Your task to perform on an android device: manage bookmarks in the chrome app Image 0: 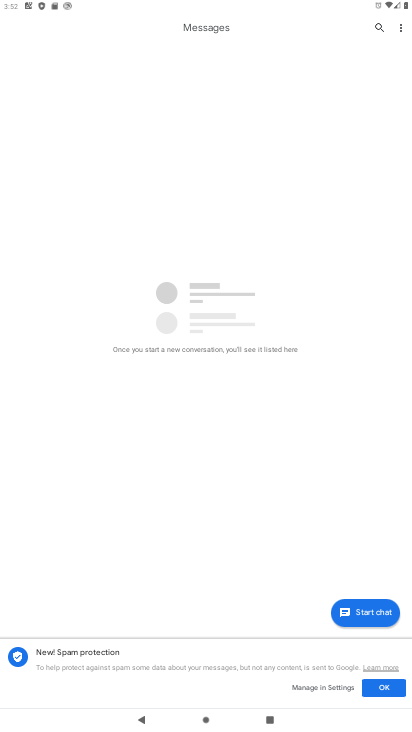
Step 0: press home button
Your task to perform on an android device: manage bookmarks in the chrome app Image 1: 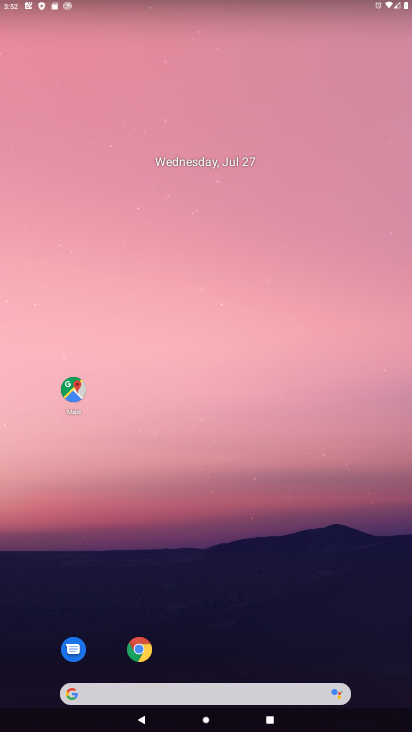
Step 1: click (139, 653)
Your task to perform on an android device: manage bookmarks in the chrome app Image 2: 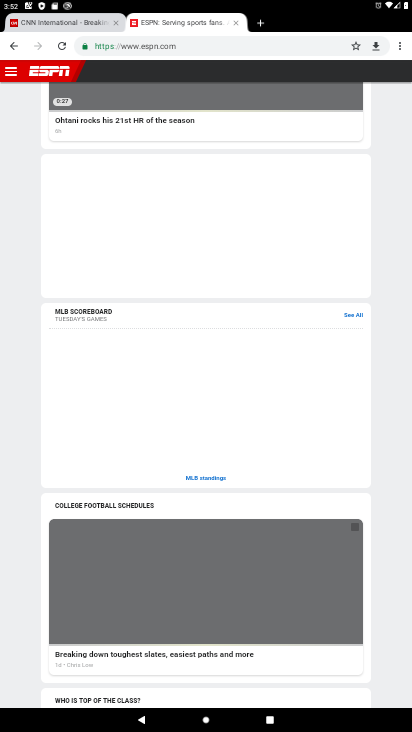
Step 2: click (398, 50)
Your task to perform on an android device: manage bookmarks in the chrome app Image 3: 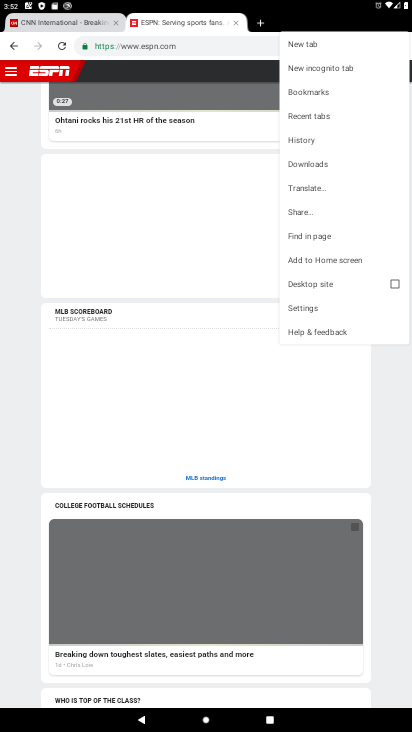
Step 3: click (298, 87)
Your task to perform on an android device: manage bookmarks in the chrome app Image 4: 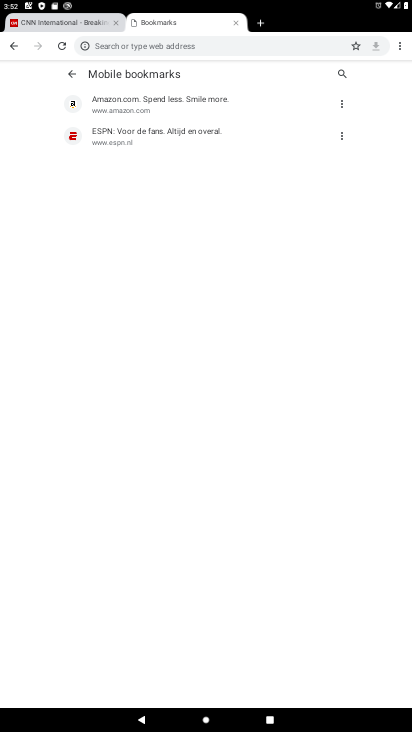
Step 4: click (110, 129)
Your task to perform on an android device: manage bookmarks in the chrome app Image 5: 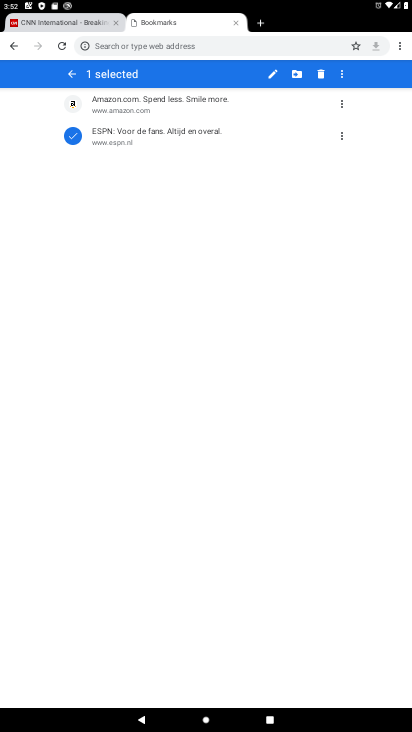
Step 5: click (293, 75)
Your task to perform on an android device: manage bookmarks in the chrome app Image 6: 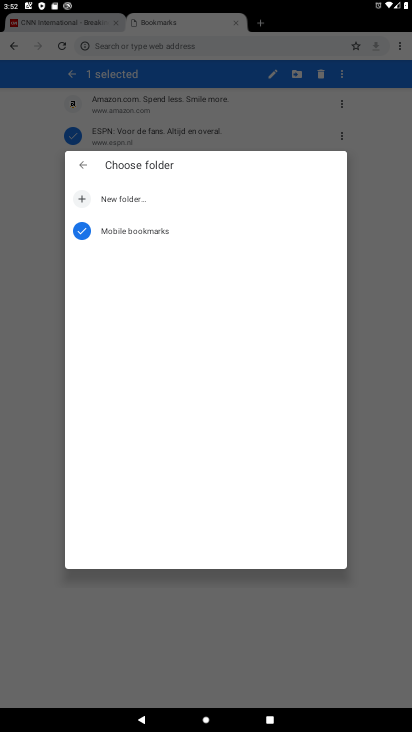
Step 6: click (81, 197)
Your task to perform on an android device: manage bookmarks in the chrome app Image 7: 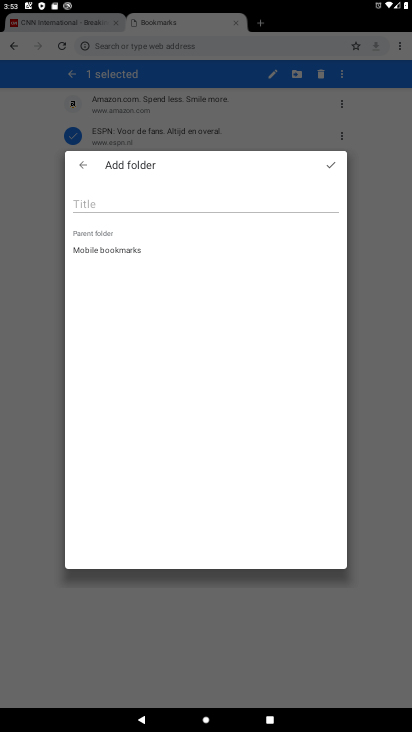
Step 7: type "yfhhfj"
Your task to perform on an android device: manage bookmarks in the chrome app Image 8: 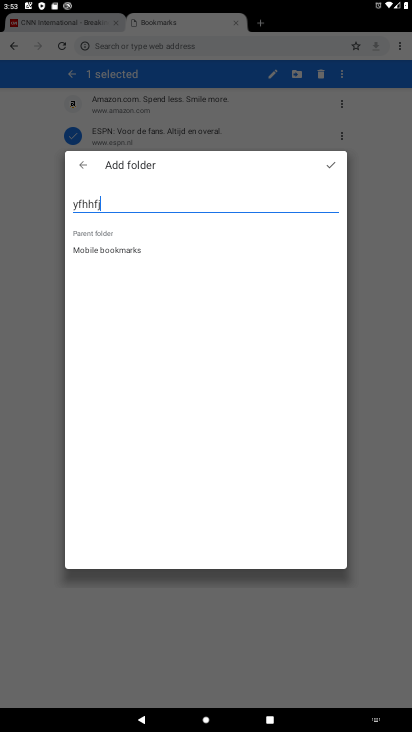
Step 8: click (327, 164)
Your task to perform on an android device: manage bookmarks in the chrome app Image 9: 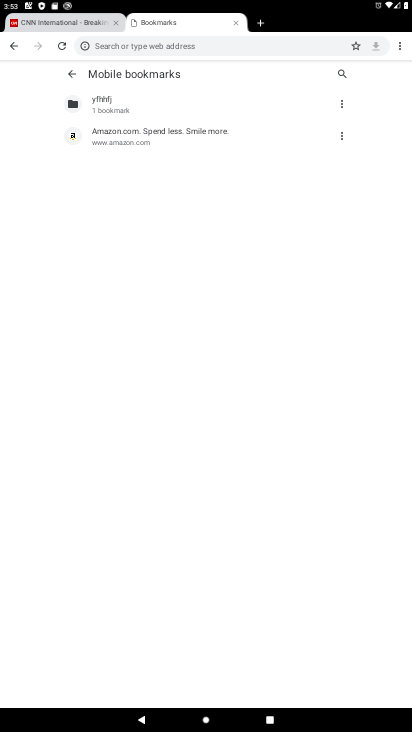
Step 9: task complete